Your task to perform on an android device: Go to Android settings Image 0: 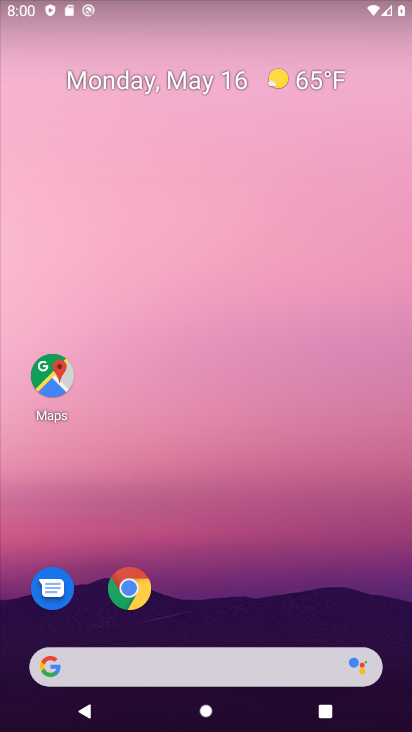
Step 0: drag from (280, 595) to (329, 118)
Your task to perform on an android device: Go to Android settings Image 1: 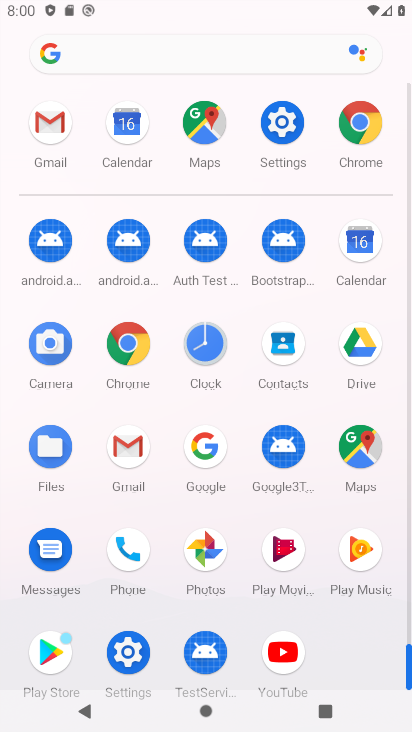
Step 1: click (295, 125)
Your task to perform on an android device: Go to Android settings Image 2: 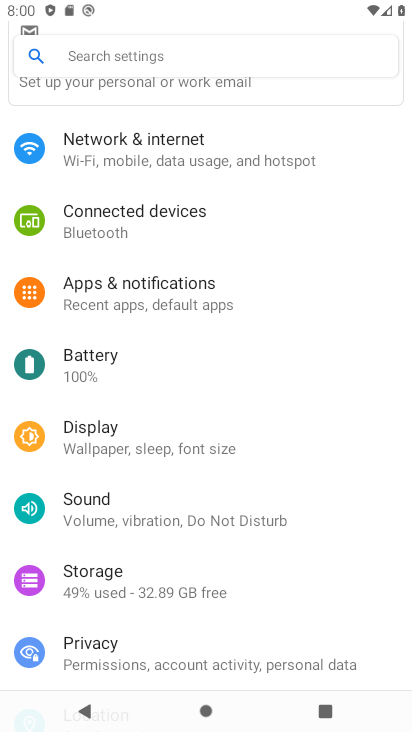
Step 2: drag from (366, 610) to (365, 436)
Your task to perform on an android device: Go to Android settings Image 3: 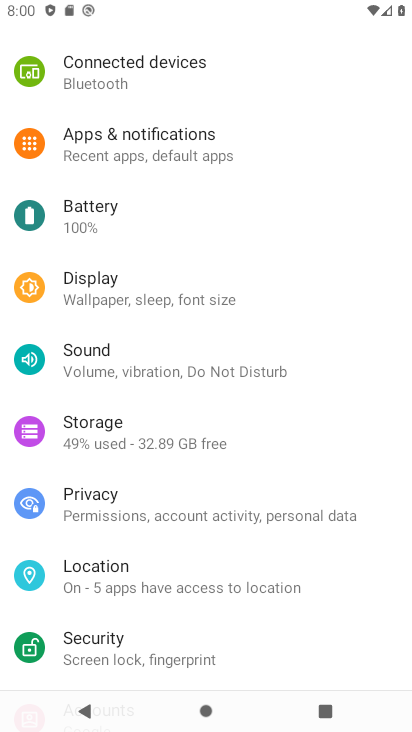
Step 3: drag from (359, 364) to (351, 483)
Your task to perform on an android device: Go to Android settings Image 4: 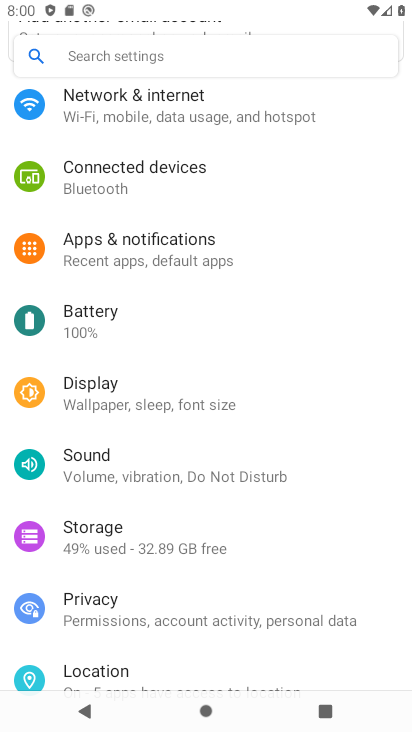
Step 4: drag from (351, 574) to (346, 430)
Your task to perform on an android device: Go to Android settings Image 5: 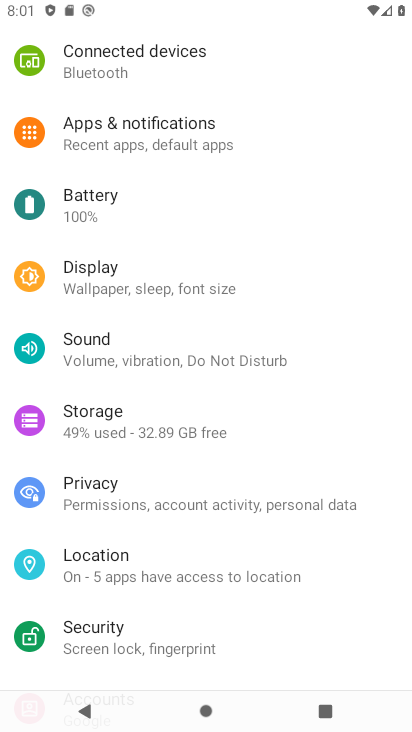
Step 5: drag from (336, 634) to (332, 491)
Your task to perform on an android device: Go to Android settings Image 6: 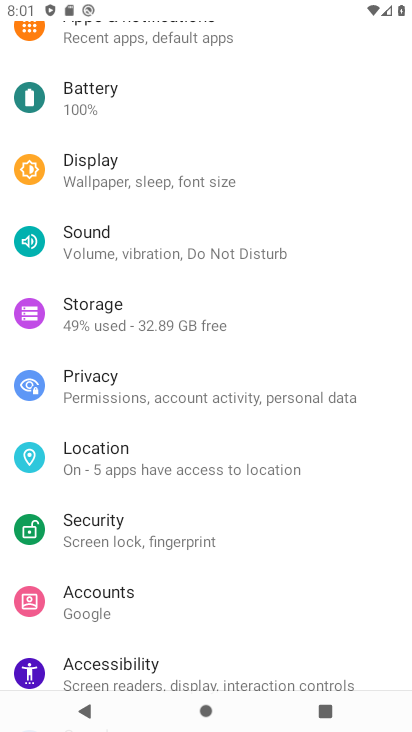
Step 6: drag from (291, 622) to (294, 457)
Your task to perform on an android device: Go to Android settings Image 7: 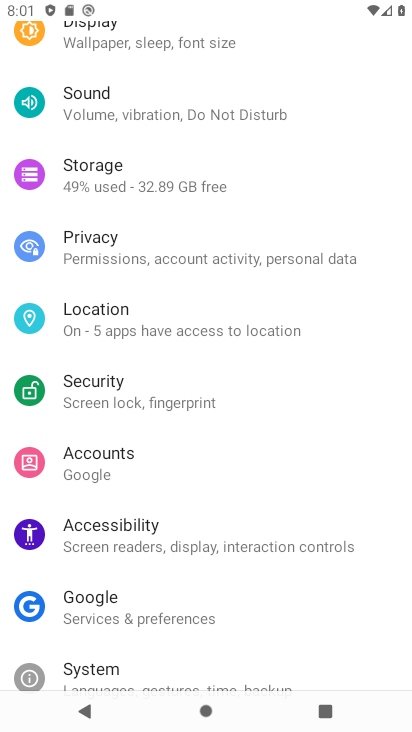
Step 7: drag from (282, 651) to (300, 498)
Your task to perform on an android device: Go to Android settings Image 8: 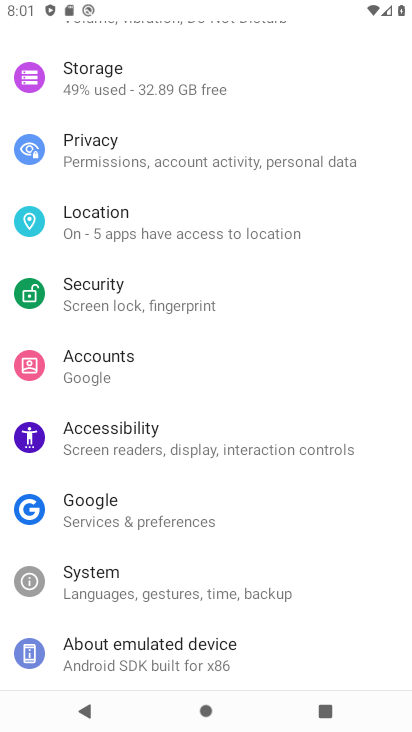
Step 8: click (251, 583)
Your task to perform on an android device: Go to Android settings Image 9: 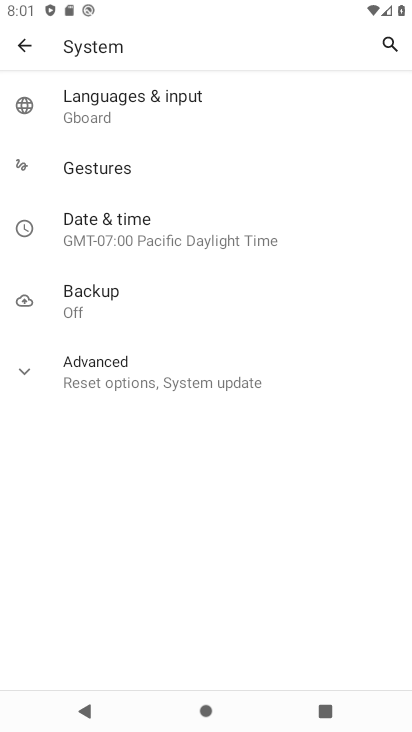
Step 9: click (205, 392)
Your task to perform on an android device: Go to Android settings Image 10: 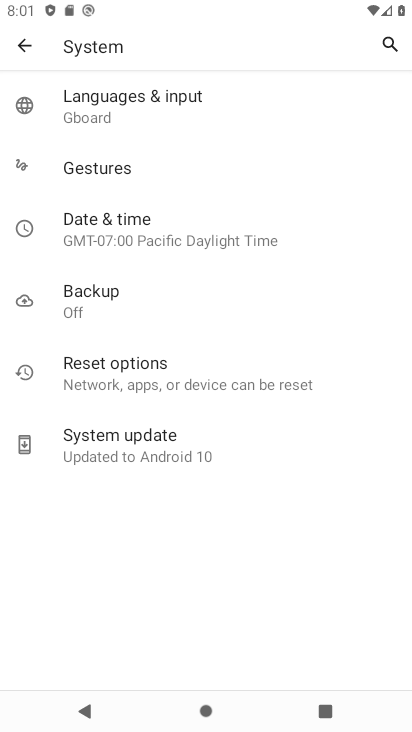
Step 10: click (157, 459)
Your task to perform on an android device: Go to Android settings Image 11: 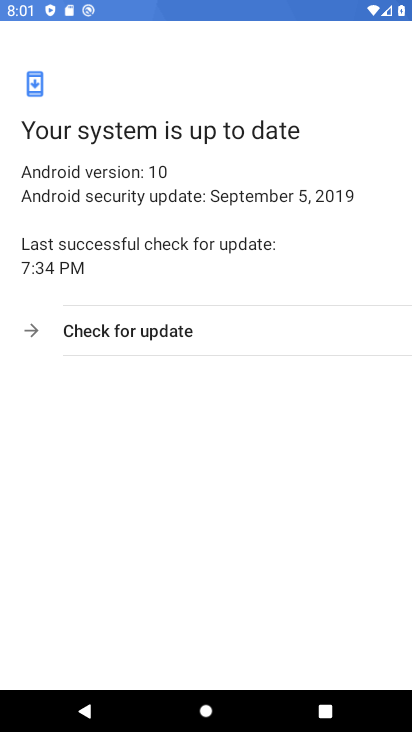
Step 11: task complete